Your task to perform on an android device: turn off notifications settings in the gmail app Image 0: 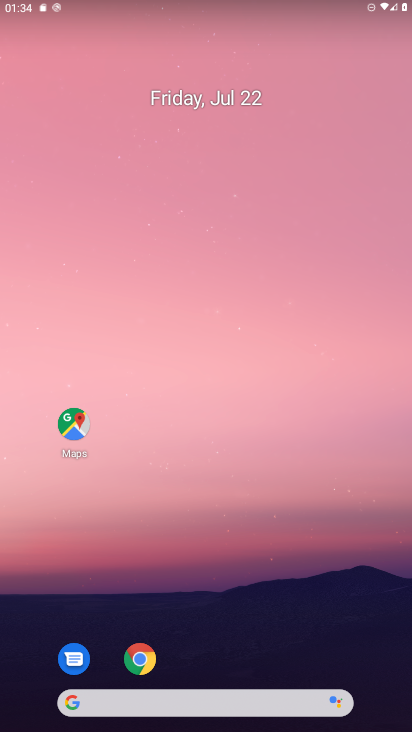
Step 0: drag from (206, 707) to (279, 187)
Your task to perform on an android device: turn off notifications settings in the gmail app Image 1: 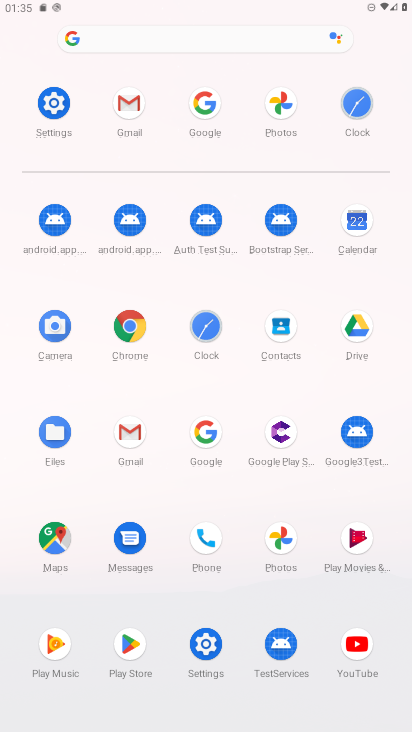
Step 1: click (129, 431)
Your task to perform on an android device: turn off notifications settings in the gmail app Image 2: 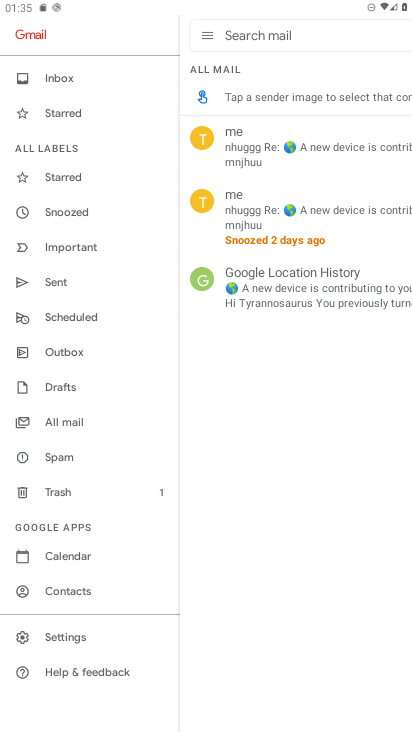
Step 2: click (60, 635)
Your task to perform on an android device: turn off notifications settings in the gmail app Image 3: 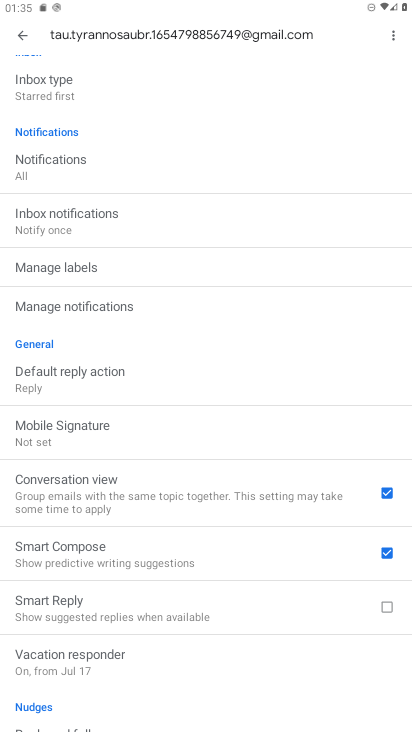
Step 3: click (80, 308)
Your task to perform on an android device: turn off notifications settings in the gmail app Image 4: 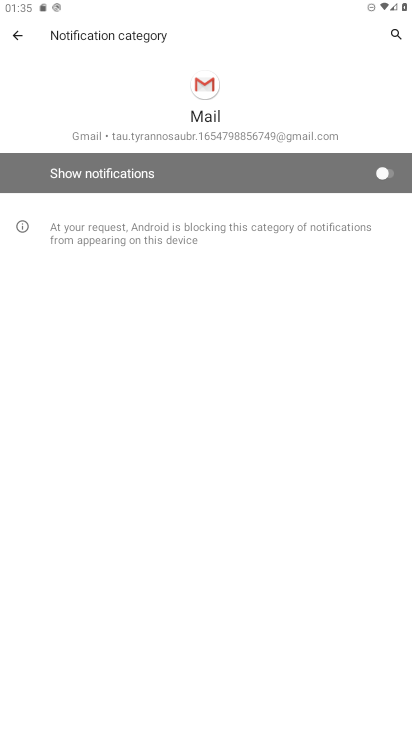
Step 4: task complete